Your task to perform on an android device: open app "Google Play Music" (install if not already installed) Image 0: 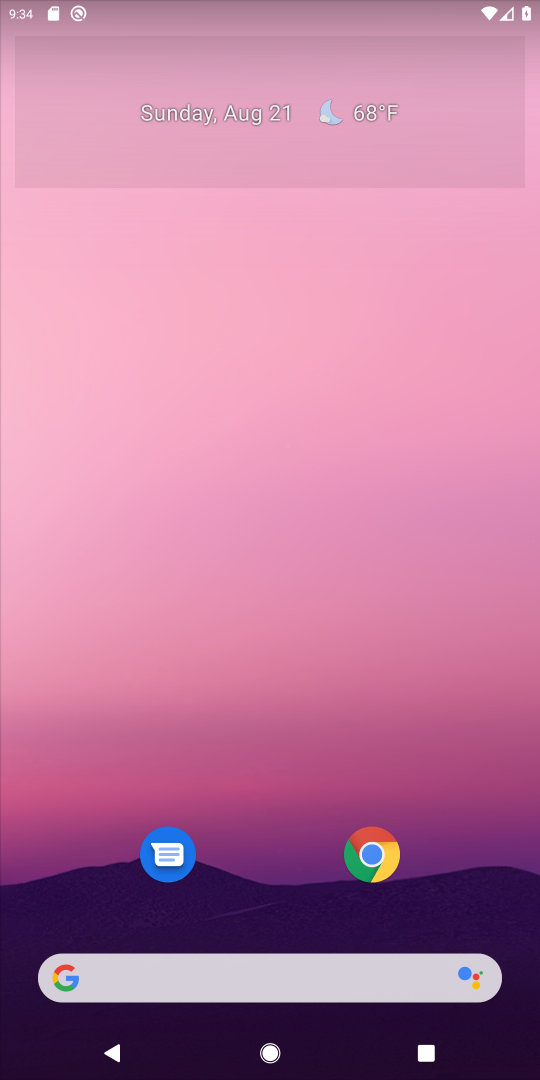
Step 0: drag from (248, 955) to (455, 1)
Your task to perform on an android device: open app "Google Play Music" (install if not already installed) Image 1: 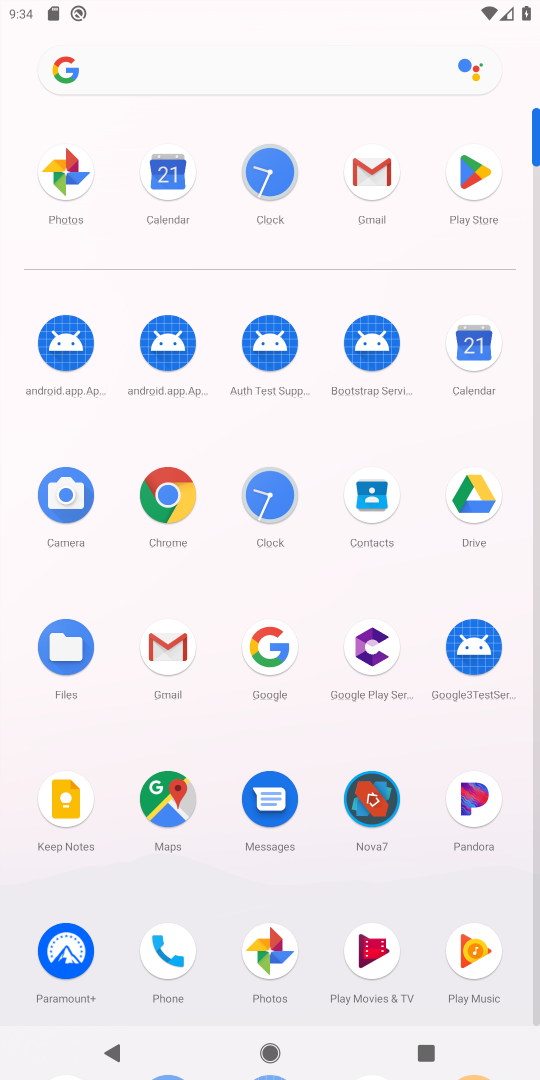
Step 1: click (485, 201)
Your task to perform on an android device: open app "Google Play Music" (install if not already installed) Image 2: 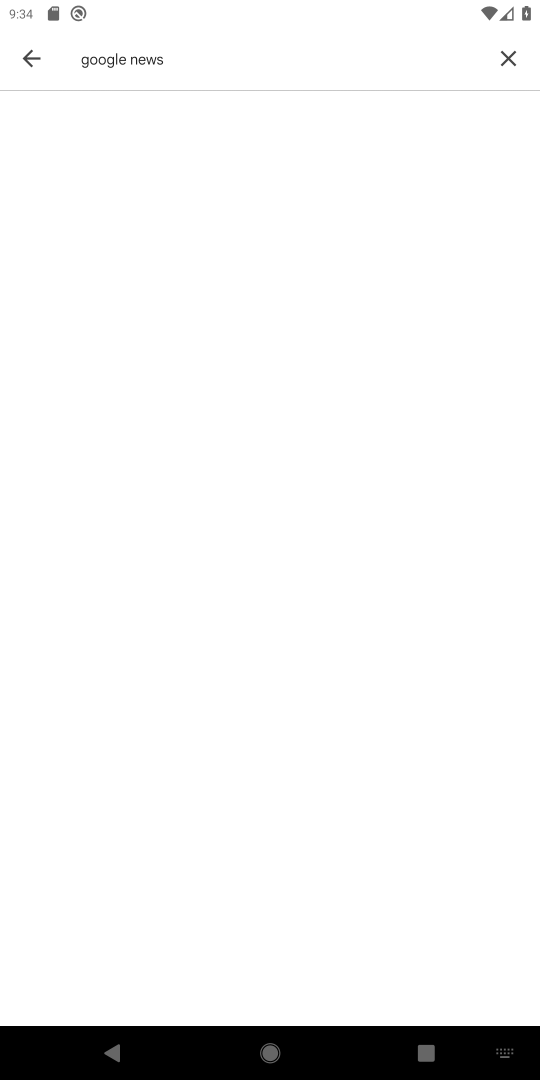
Step 2: click (498, 77)
Your task to perform on an android device: open app "Google Play Music" (install if not already installed) Image 3: 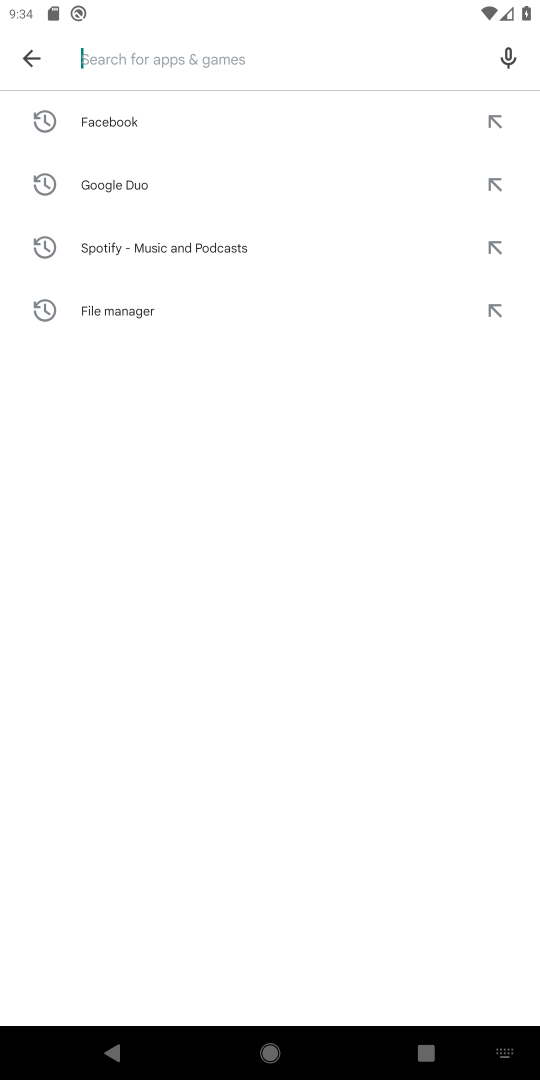
Step 3: type "google  play"
Your task to perform on an android device: open app "Google Play Music" (install if not already installed) Image 4: 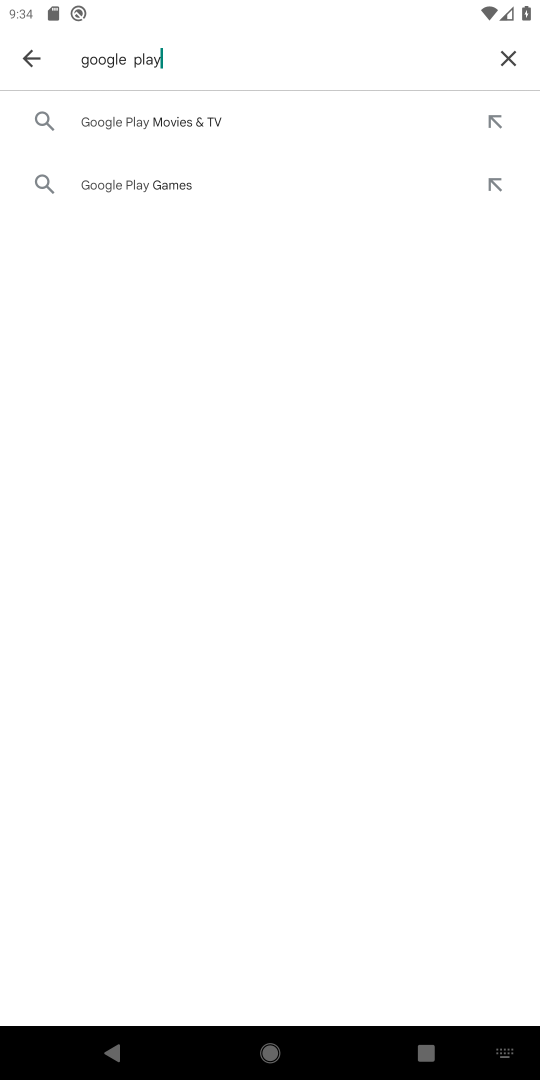
Step 4: click (197, 123)
Your task to perform on an android device: open app "Google Play Music" (install if not already installed) Image 5: 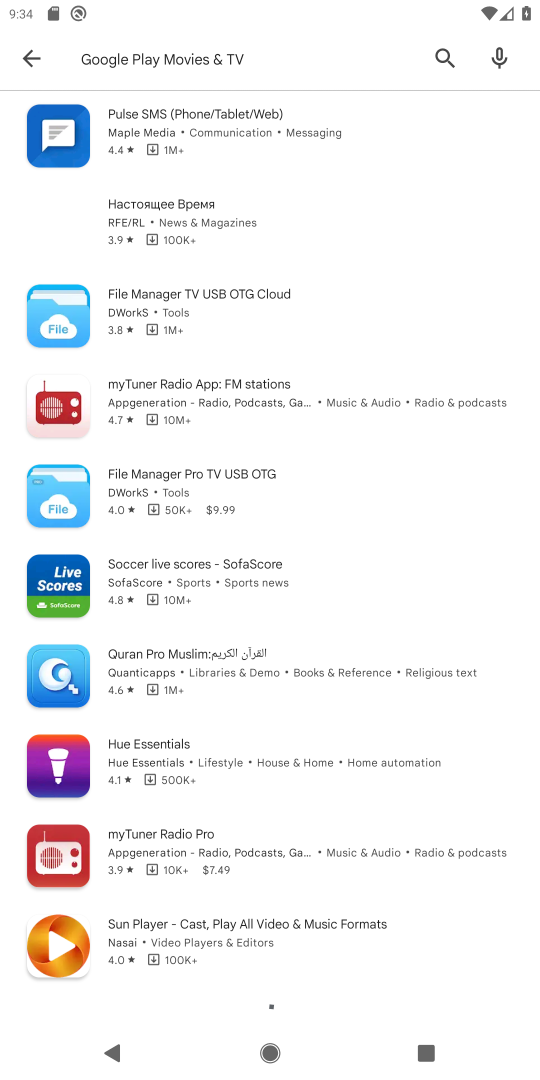
Step 5: task complete